Your task to perform on an android device: Open Google Image 0: 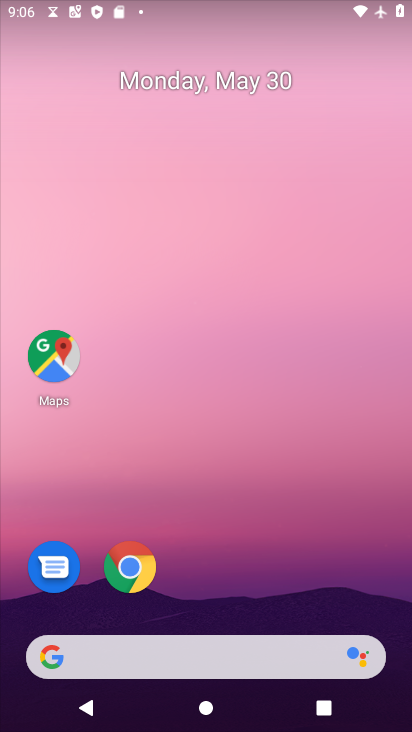
Step 0: drag from (247, 602) to (190, 213)
Your task to perform on an android device: Open Google Image 1: 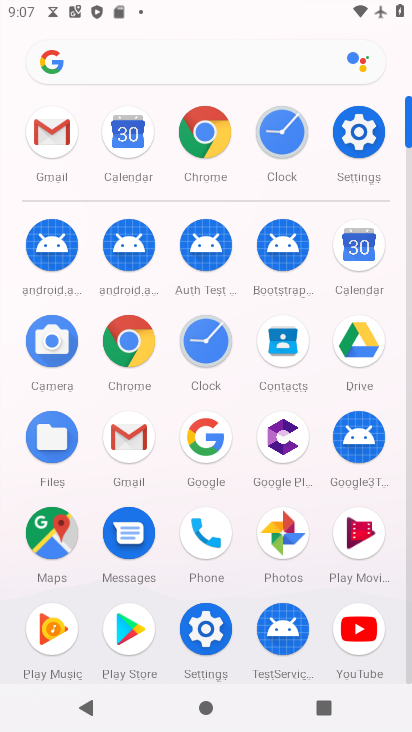
Step 1: click (193, 457)
Your task to perform on an android device: Open Google Image 2: 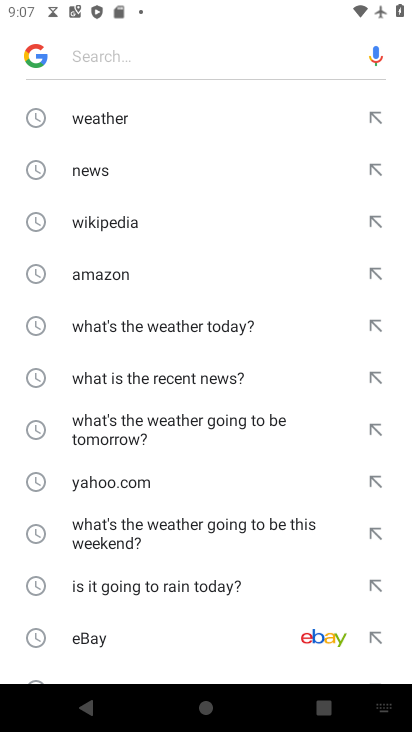
Step 2: task complete